Your task to perform on an android device: uninstall "Google Play Games" Image 0: 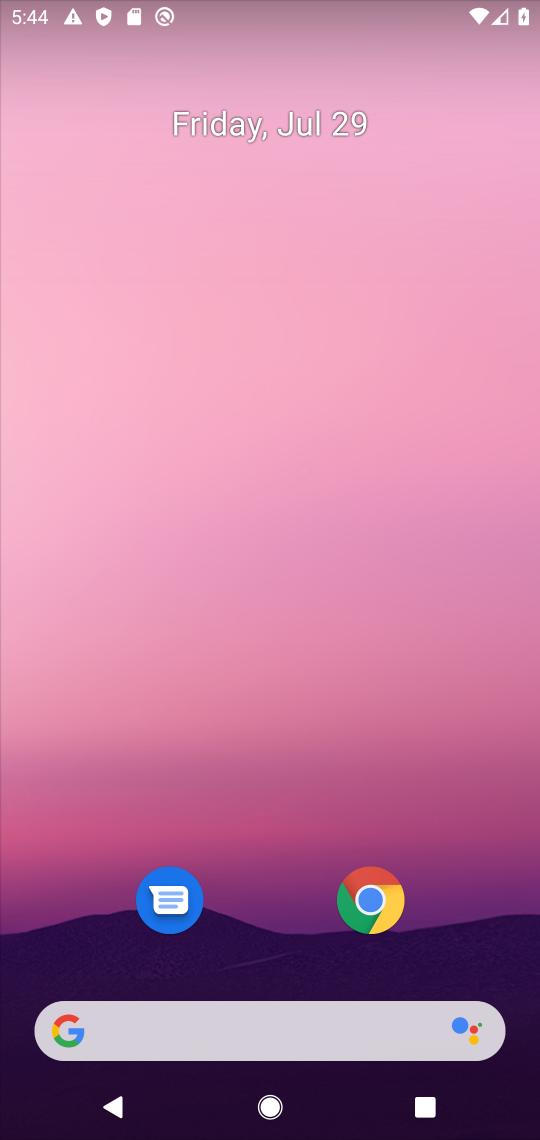
Step 0: drag from (398, 1039) to (393, 115)
Your task to perform on an android device: uninstall "Google Play Games" Image 1: 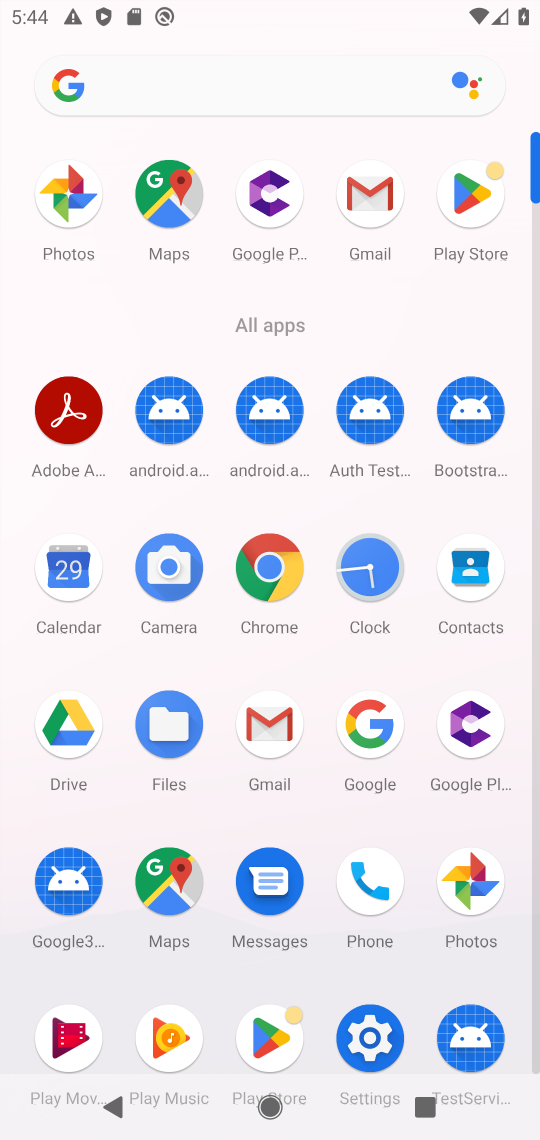
Step 1: click (487, 196)
Your task to perform on an android device: uninstall "Google Play Games" Image 2: 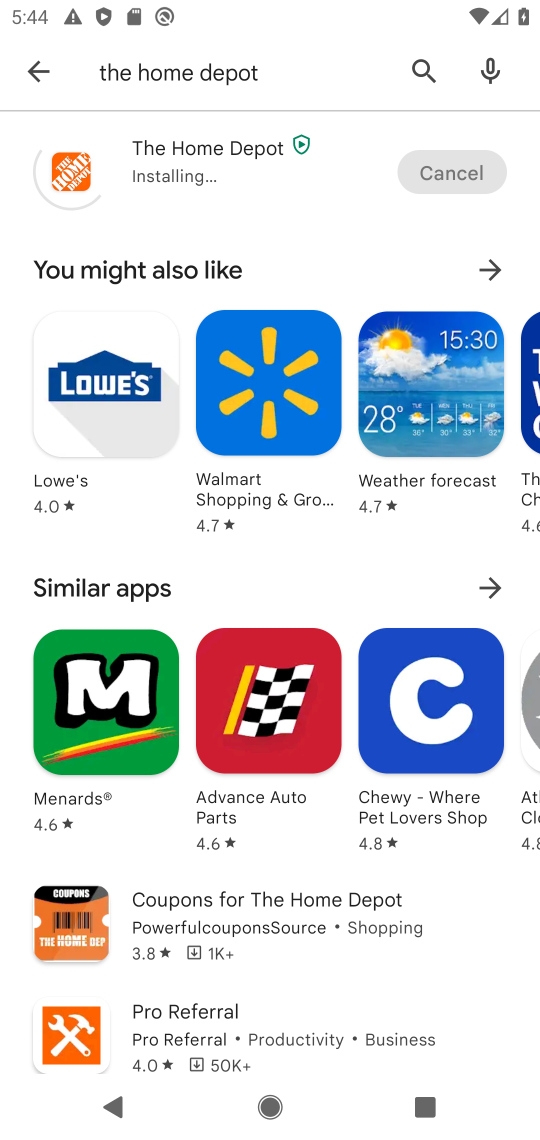
Step 2: click (417, 55)
Your task to perform on an android device: uninstall "Google Play Games" Image 3: 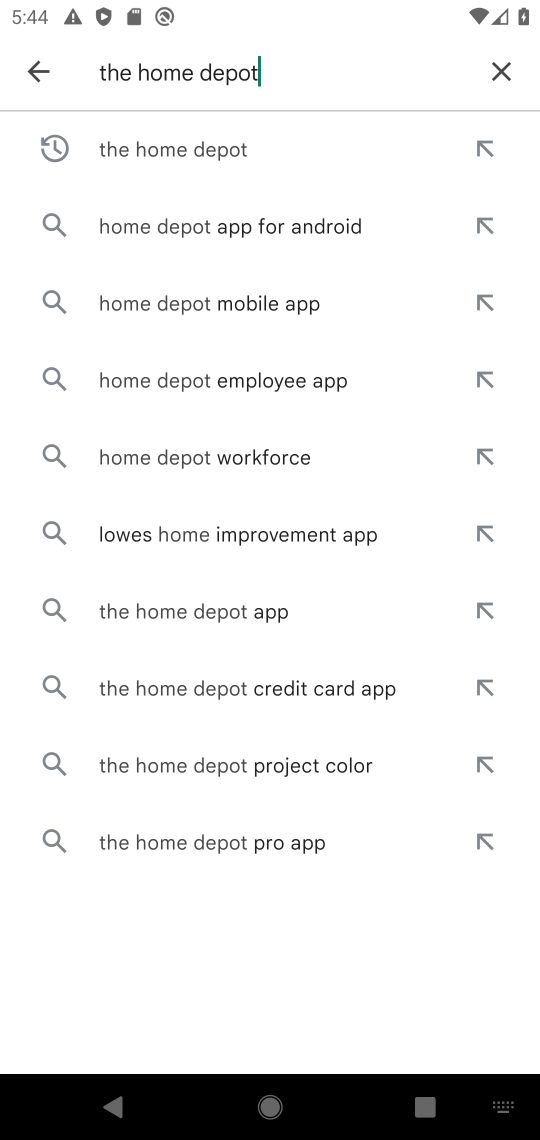
Step 3: click (500, 72)
Your task to perform on an android device: uninstall "Google Play Games" Image 4: 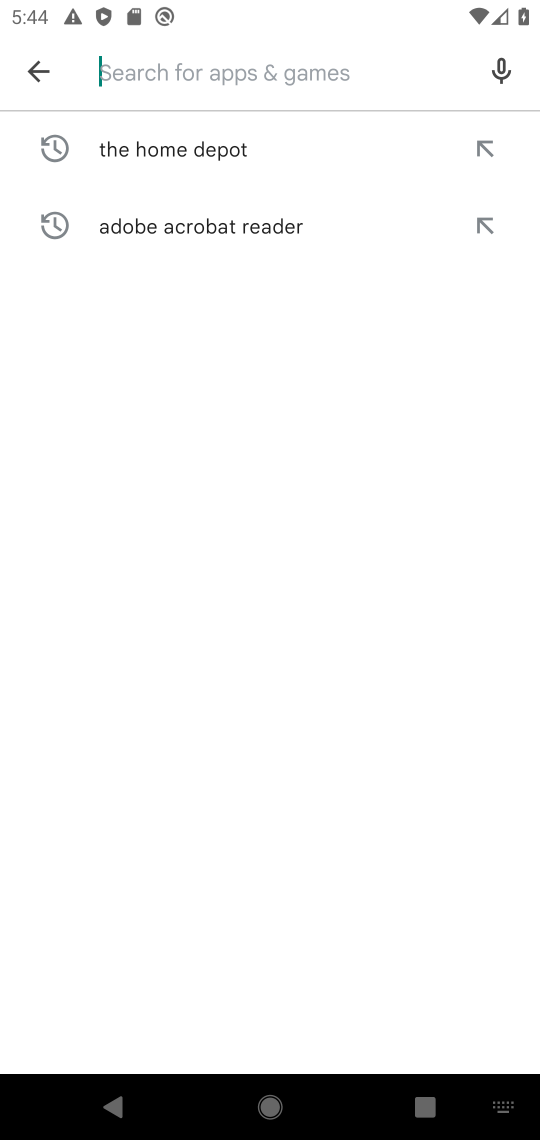
Step 4: type "google play games"
Your task to perform on an android device: uninstall "Google Play Games" Image 5: 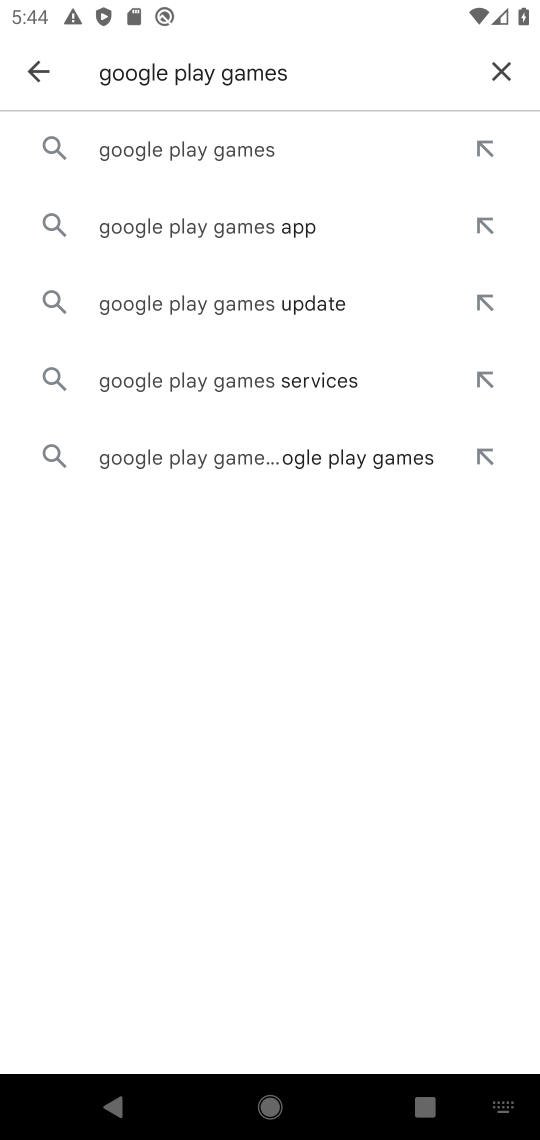
Step 5: click (312, 164)
Your task to perform on an android device: uninstall "Google Play Games" Image 6: 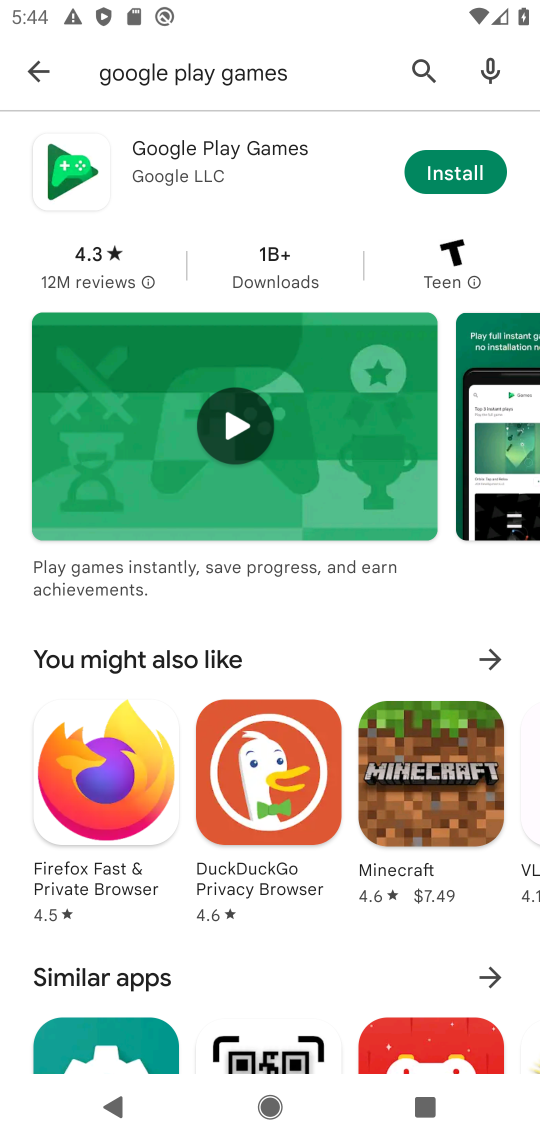
Step 6: task complete